Your task to perform on an android device: turn off location Image 0: 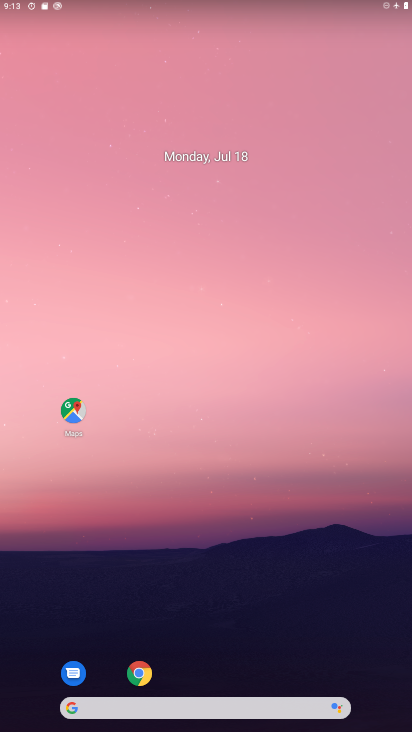
Step 0: press home button
Your task to perform on an android device: turn off location Image 1: 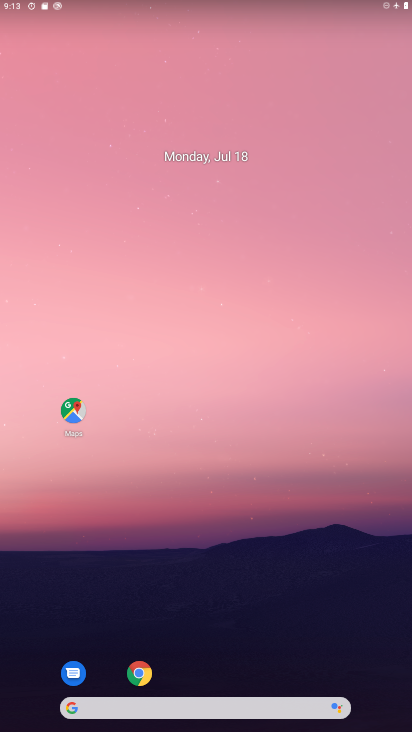
Step 1: drag from (193, 679) to (190, 71)
Your task to perform on an android device: turn off location Image 2: 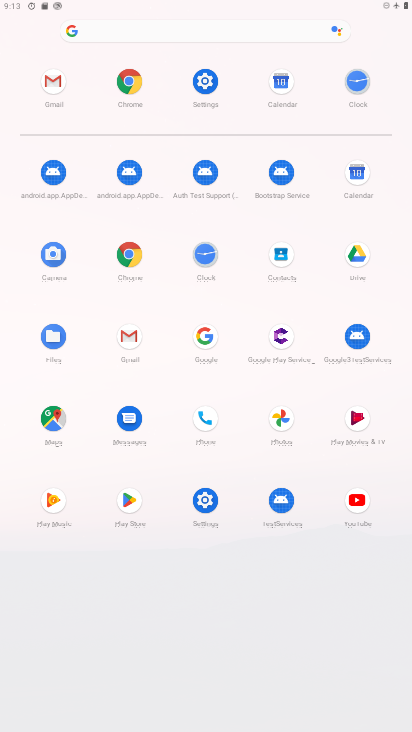
Step 2: click (202, 83)
Your task to perform on an android device: turn off location Image 3: 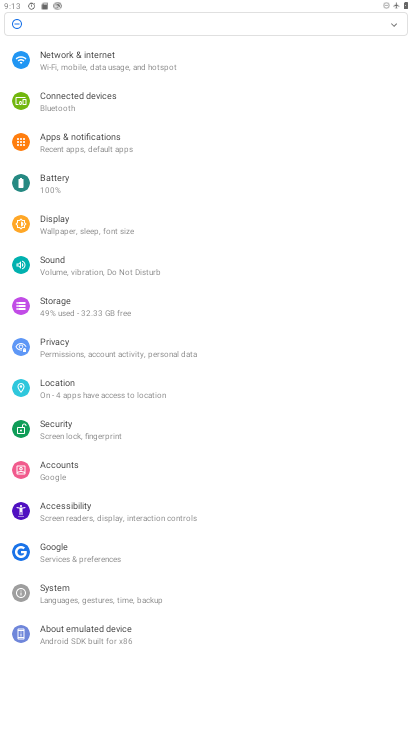
Step 3: click (58, 396)
Your task to perform on an android device: turn off location Image 4: 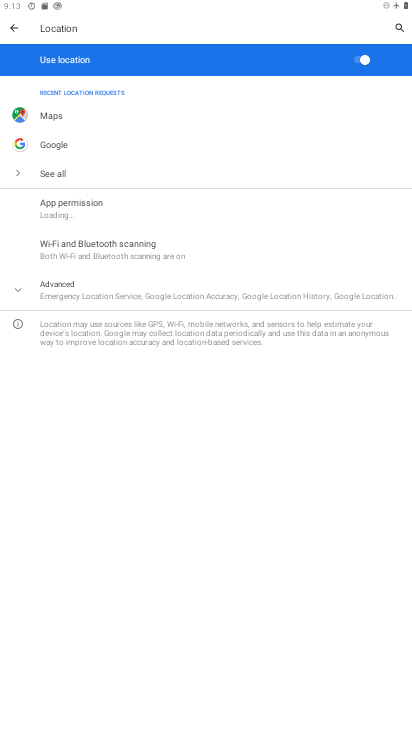
Step 4: click (377, 54)
Your task to perform on an android device: turn off location Image 5: 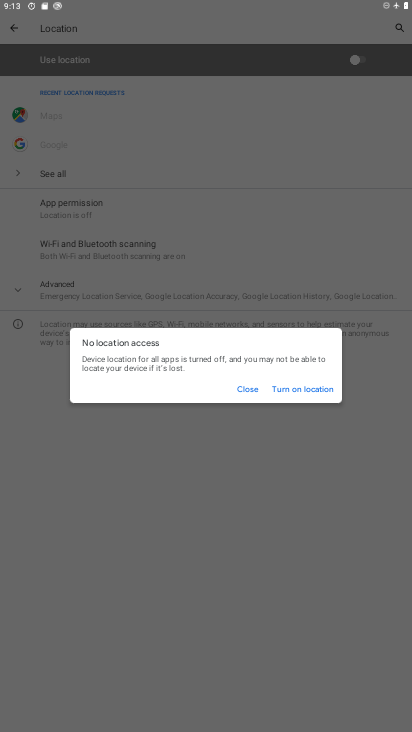
Step 5: task complete